Your task to perform on an android device: check data usage Image 0: 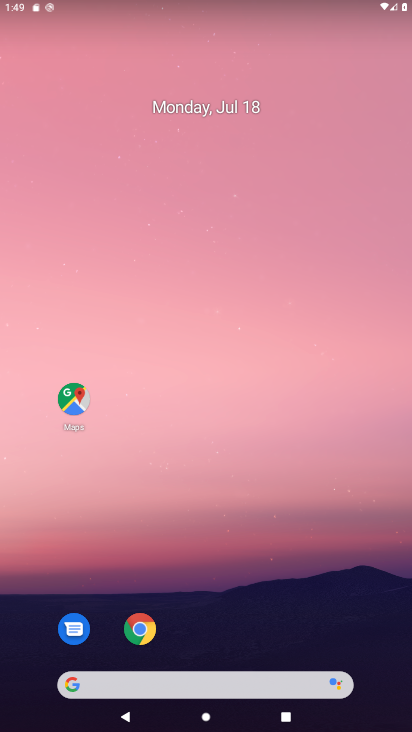
Step 0: drag from (201, 588) to (201, 22)
Your task to perform on an android device: check data usage Image 1: 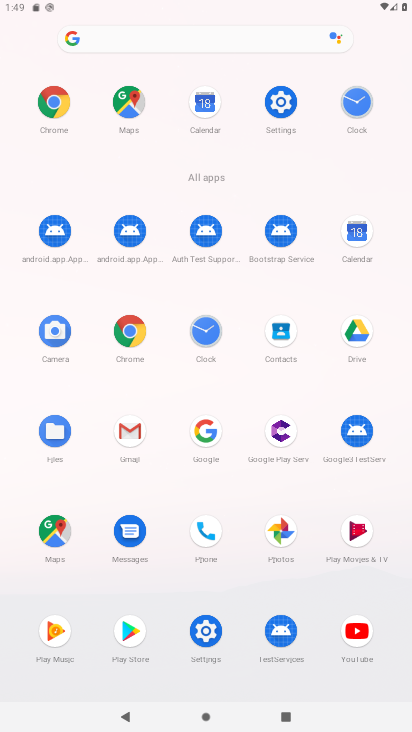
Step 1: click (281, 98)
Your task to perform on an android device: check data usage Image 2: 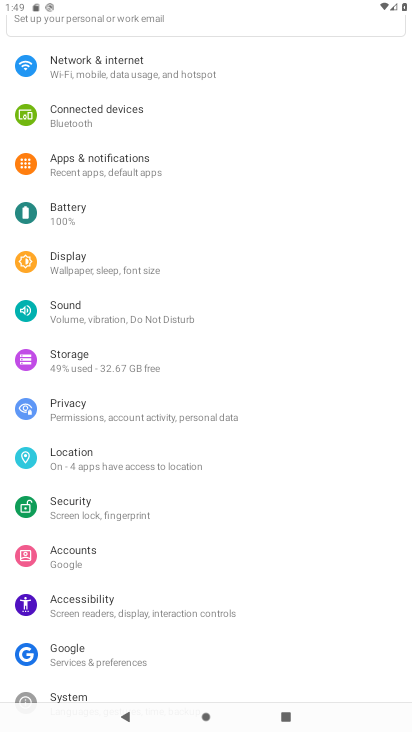
Step 2: click (156, 66)
Your task to perform on an android device: check data usage Image 3: 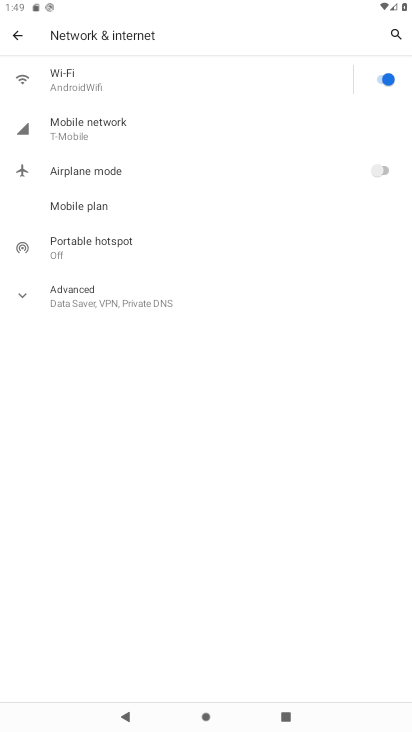
Step 3: click (119, 131)
Your task to perform on an android device: check data usage Image 4: 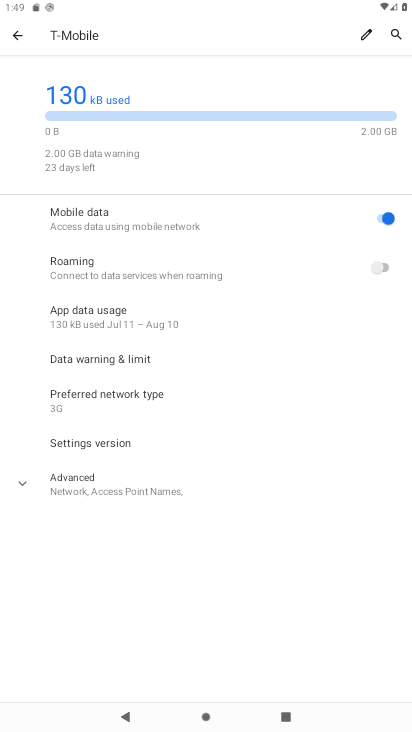
Step 4: task complete